Your task to perform on an android device: turn off javascript in the chrome app Image 0: 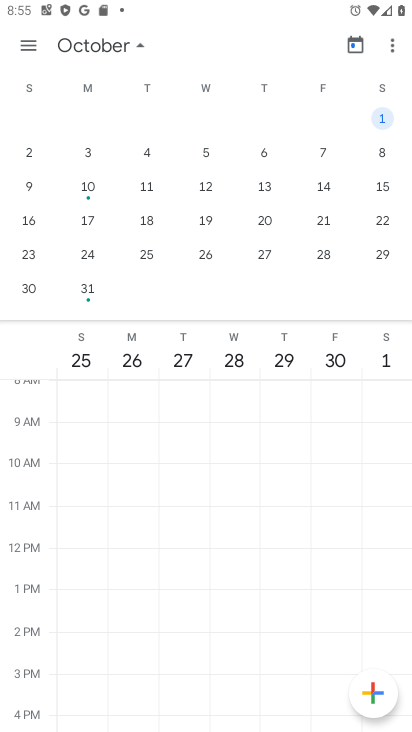
Step 0: press home button
Your task to perform on an android device: turn off javascript in the chrome app Image 1: 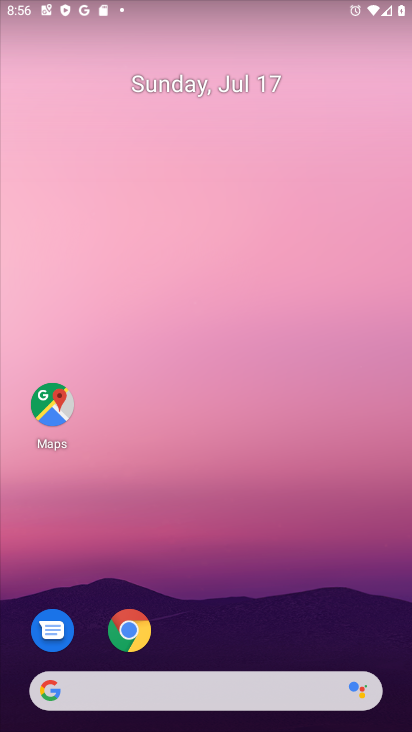
Step 1: click (143, 631)
Your task to perform on an android device: turn off javascript in the chrome app Image 2: 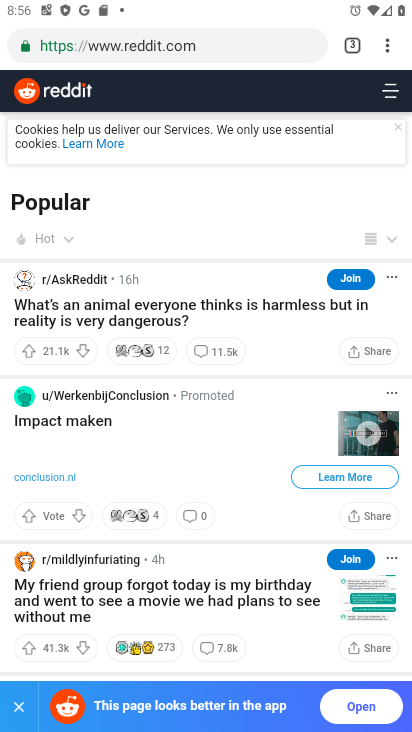
Step 2: click (386, 47)
Your task to perform on an android device: turn off javascript in the chrome app Image 3: 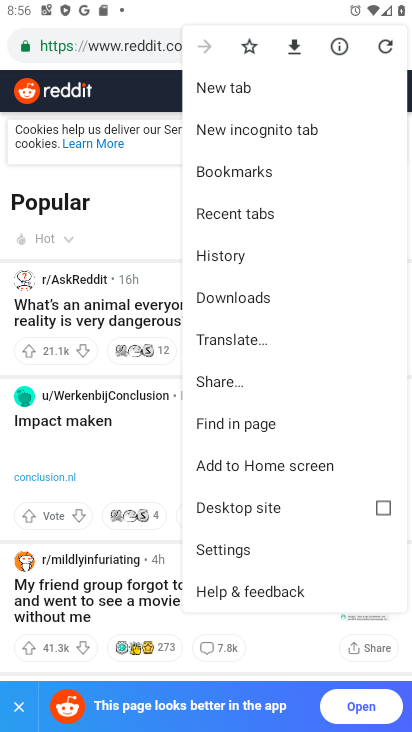
Step 3: click (234, 546)
Your task to perform on an android device: turn off javascript in the chrome app Image 4: 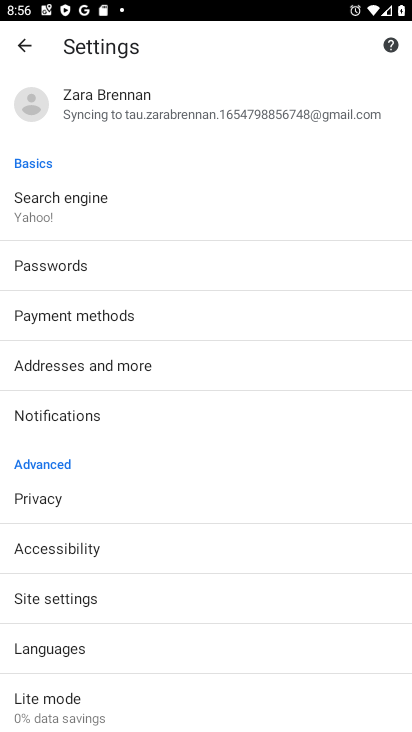
Step 4: click (65, 587)
Your task to perform on an android device: turn off javascript in the chrome app Image 5: 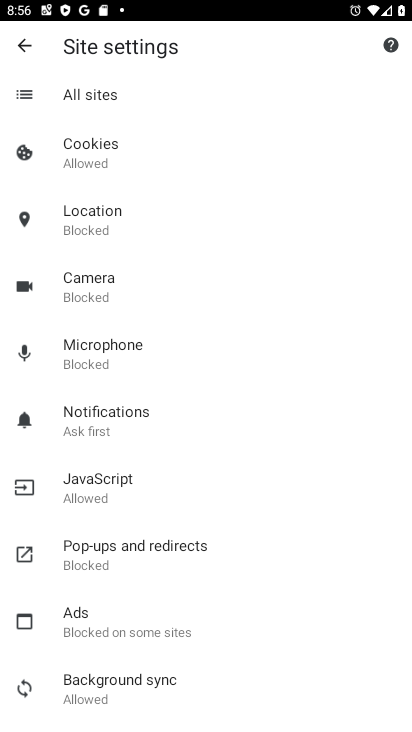
Step 5: click (99, 493)
Your task to perform on an android device: turn off javascript in the chrome app Image 6: 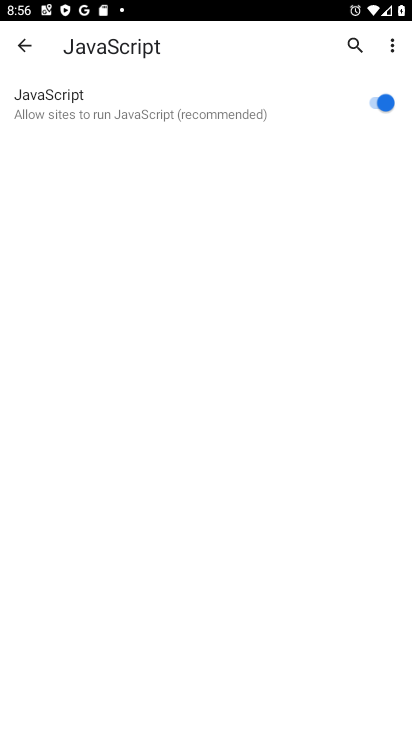
Step 6: click (378, 99)
Your task to perform on an android device: turn off javascript in the chrome app Image 7: 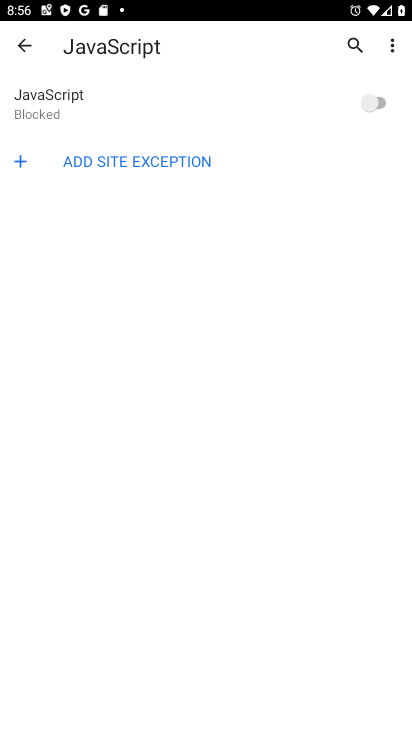
Step 7: task complete